Your task to perform on an android device: turn off picture-in-picture Image 0: 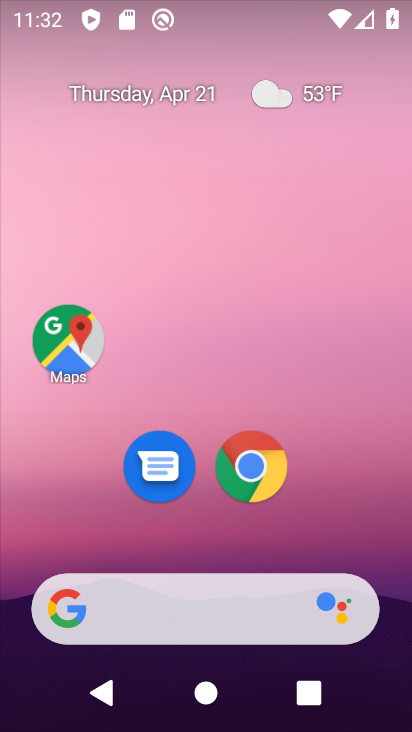
Step 0: drag from (295, 333) to (252, 32)
Your task to perform on an android device: turn off picture-in-picture Image 1: 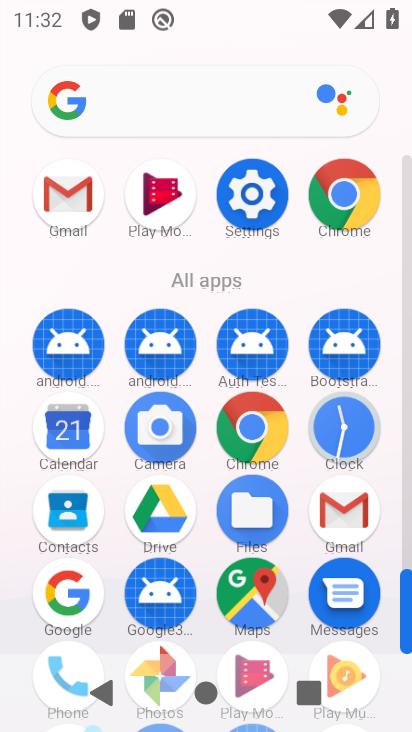
Step 1: drag from (17, 602) to (17, 267)
Your task to perform on an android device: turn off picture-in-picture Image 2: 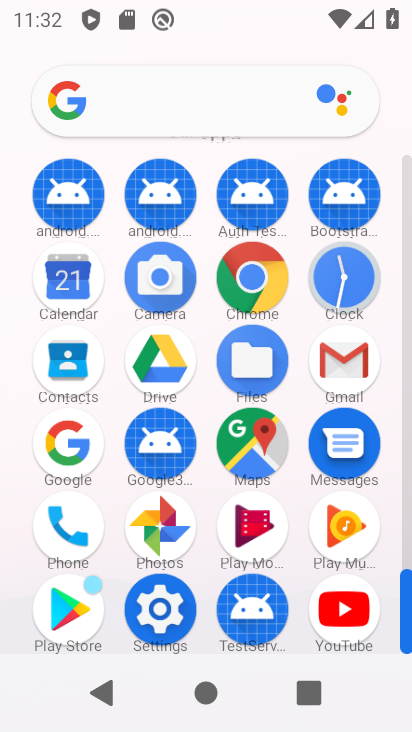
Step 2: click (158, 607)
Your task to perform on an android device: turn off picture-in-picture Image 3: 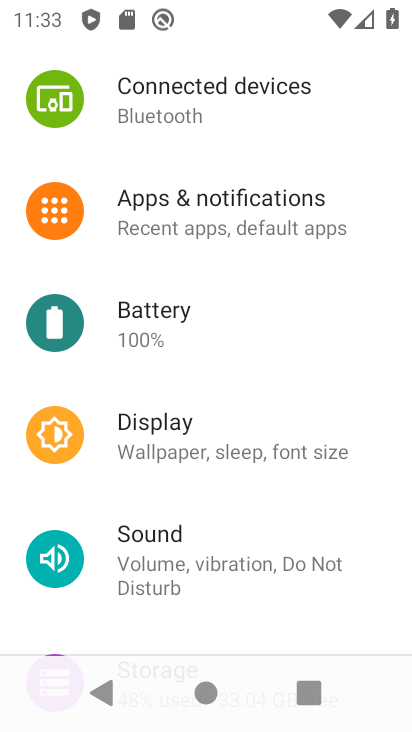
Step 3: click (291, 212)
Your task to perform on an android device: turn off picture-in-picture Image 4: 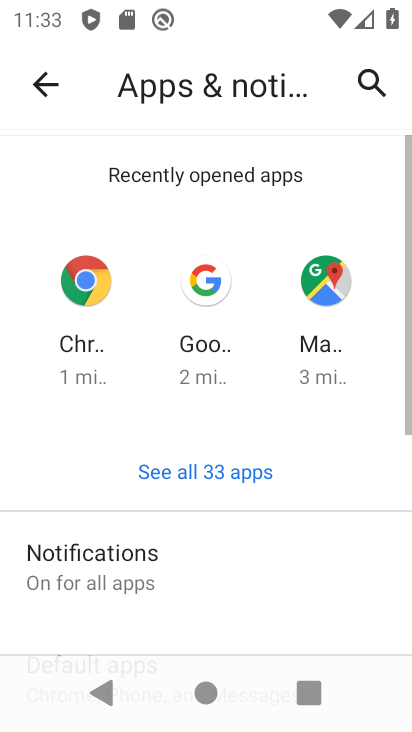
Step 4: drag from (254, 582) to (273, 123)
Your task to perform on an android device: turn off picture-in-picture Image 5: 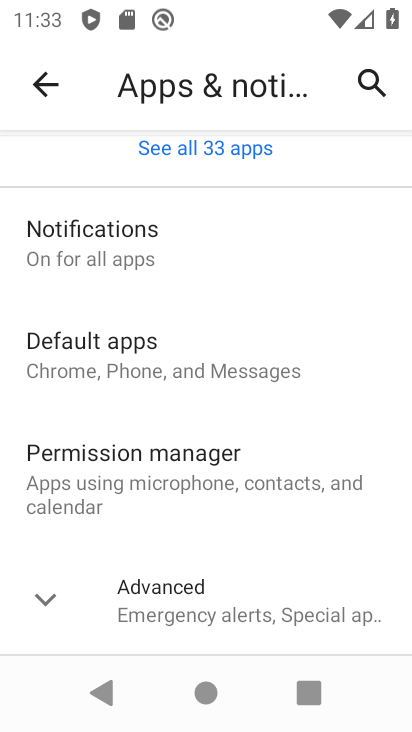
Step 5: click (200, 597)
Your task to perform on an android device: turn off picture-in-picture Image 6: 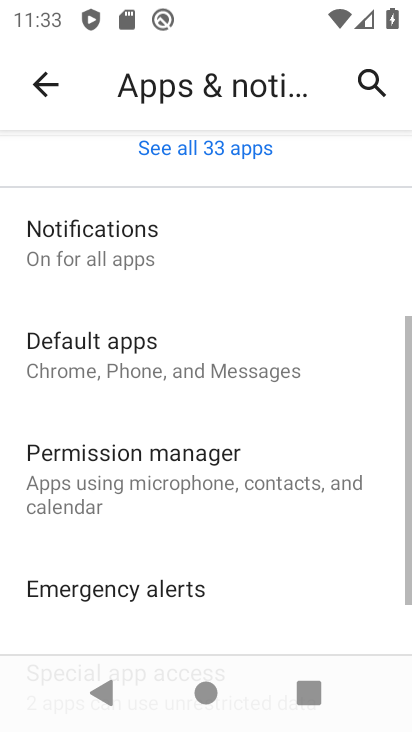
Step 6: drag from (308, 583) to (293, 109)
Your task to perform on an android device: turn off picture-in-picture Image 7: 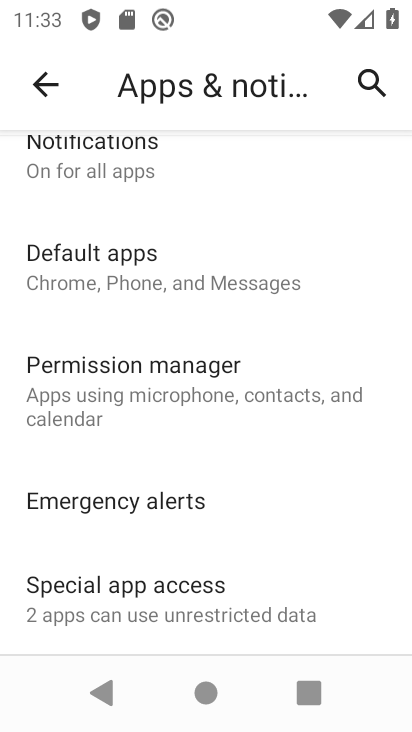
Step 7: drag from (254, 522) to (279, 119)
Your task to perform on an android device: turn off picture-in-picture Image 8: 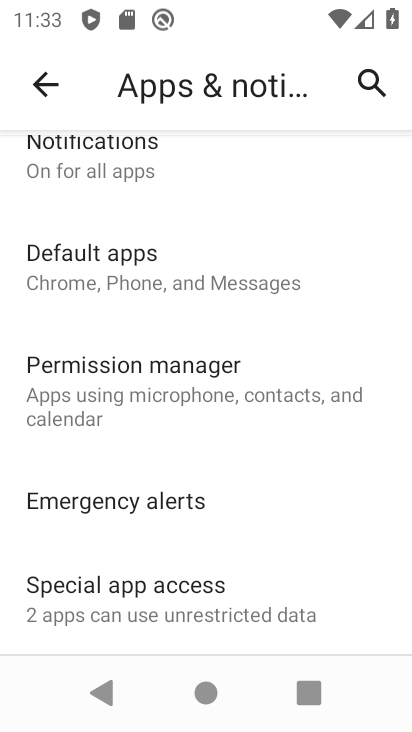
Step 8: drag from (238, 484) to (265, 163)
Your task to perform on an android device: turn off picture-in-picture Image 9: 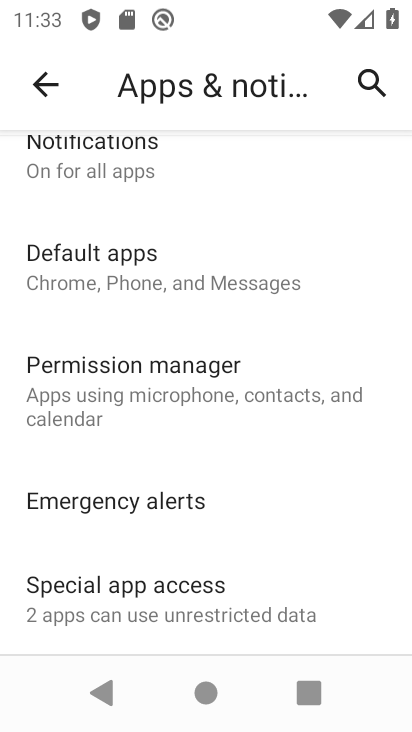
Step 9: click (162, 571)
Your task to perform on an android device: turn off picture-in-picture Image 10: 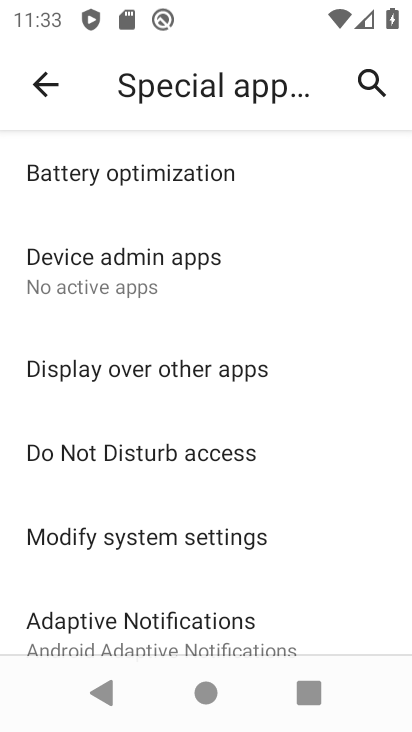
Step 10: drag from (270, 534) to (303, 198)
Your task to perform on an android device: turn off picture-in-picture Image 11: 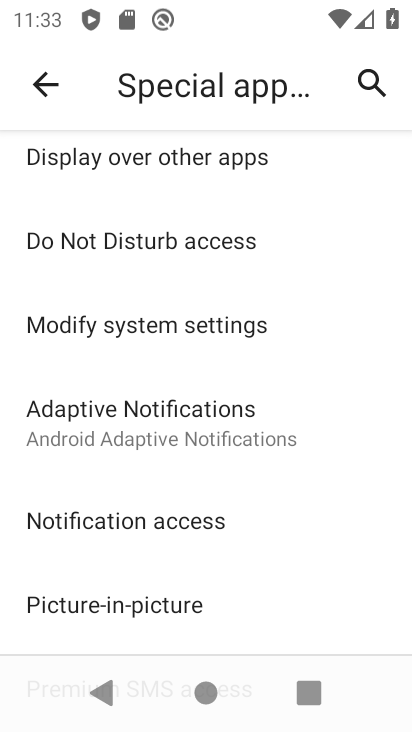
Step 11: drag from (264, 488) to (275, 170)
Your task to perform on an android device: turn off picture-in-picture Image 12: 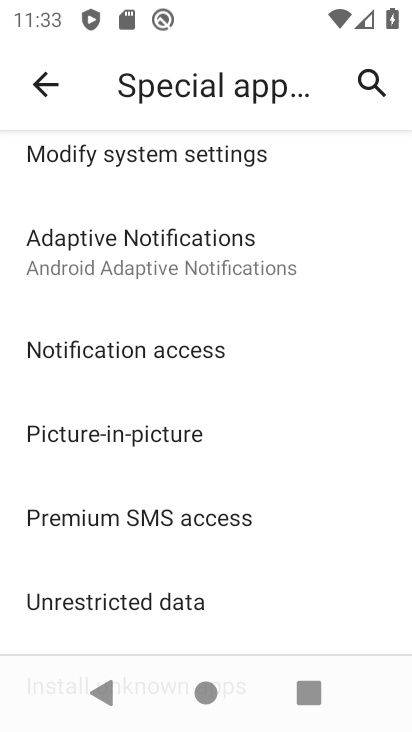
Step 12: drag from (243, 462) to (256, 183)
Your task to perform on an android device: turn off picture-in-picture Image 13: 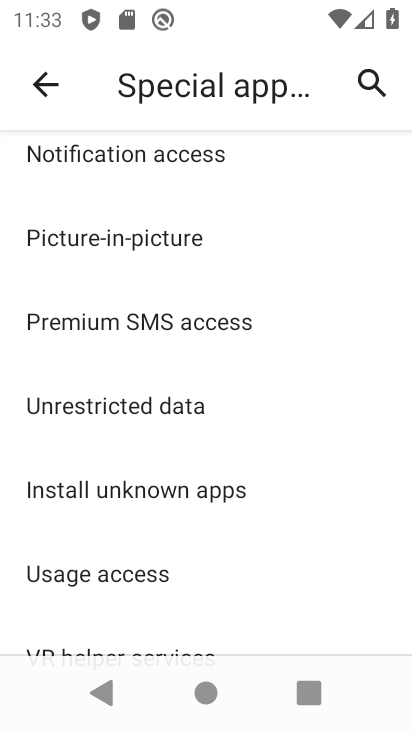
Step 13: drag from (249, 564) to (261, 173)
Your task to perform on an android device: turn off picture-in-picture Image 14: 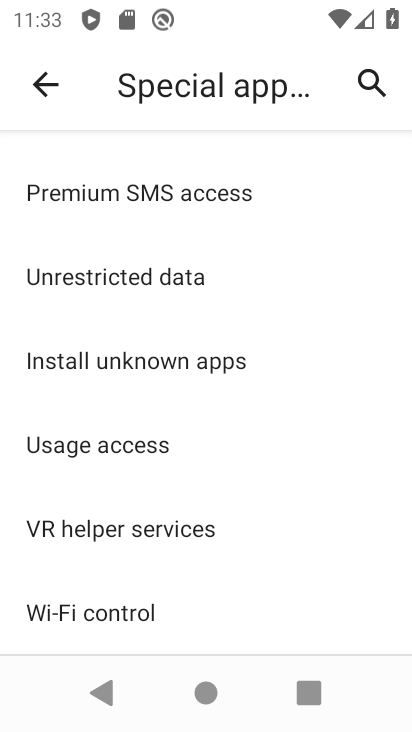
Step 14: drag from (234, 240) to (228, 528)
Your task to perform on an android device: turn off picture-in-picture Image 15: 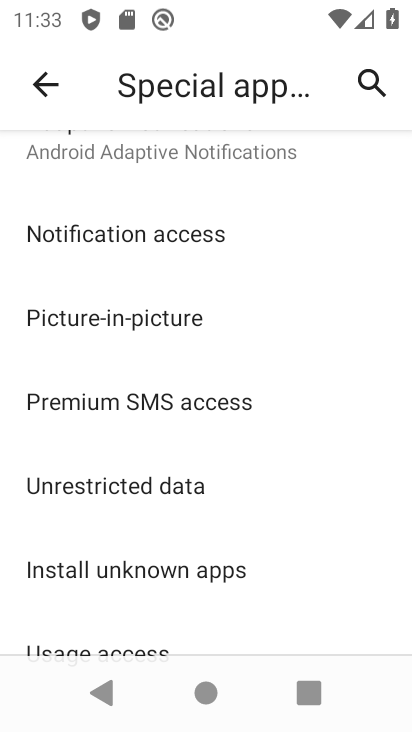
Step 15: click (173, 307)
Your task to perform on an android device: turn off picture-in-picture Image 16: 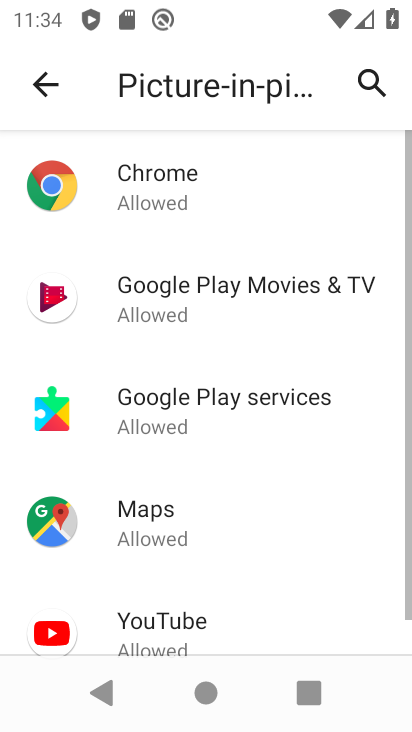
Step 16: click (202, 178)
Your task to perform on an android device: turn off picture-in-picture Image 17: 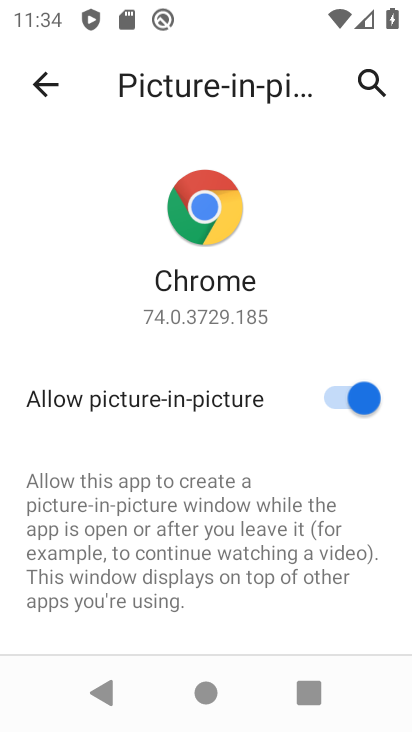
Step 17: click (354, 373)
Your task to perform on an android device: turn off picture-in-picture Image 18: 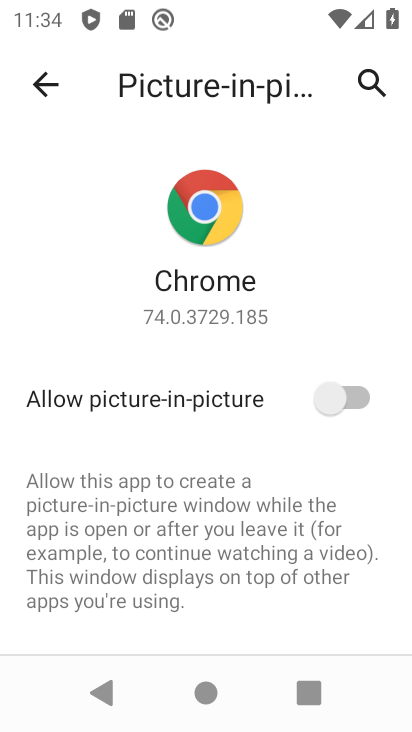
Step 18: click (40, 62)
Your task to perform on an android device: turn off picture-in-picture Image 19: 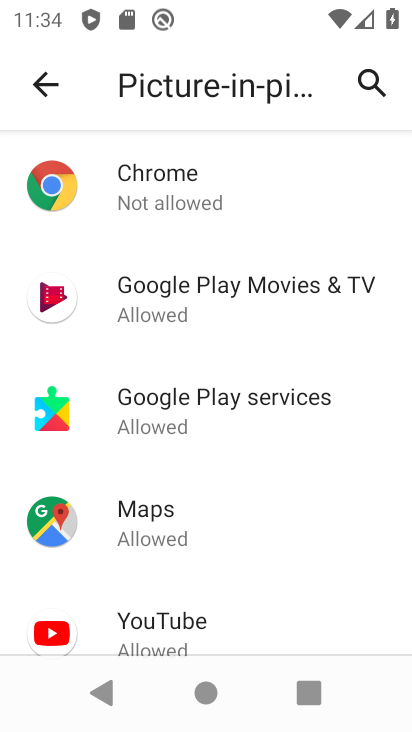
Step 19: click (233, 291)
Your task to perform on an android device: turn off picture-in-picture Image 20: 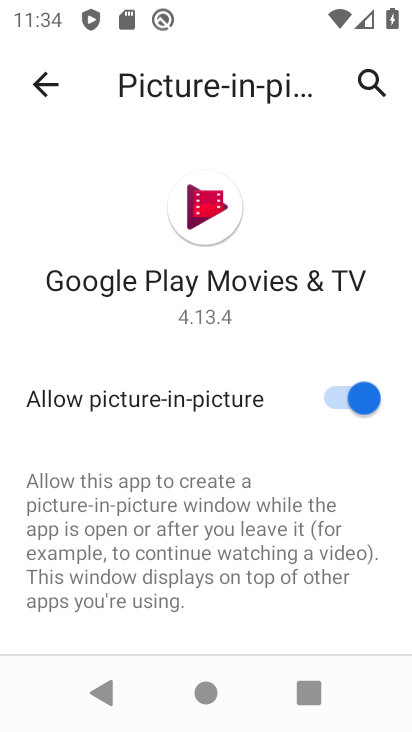
Step 20: click (48, 83)
Your task to perform on an android device: turn off picture-in-picture Image 21: 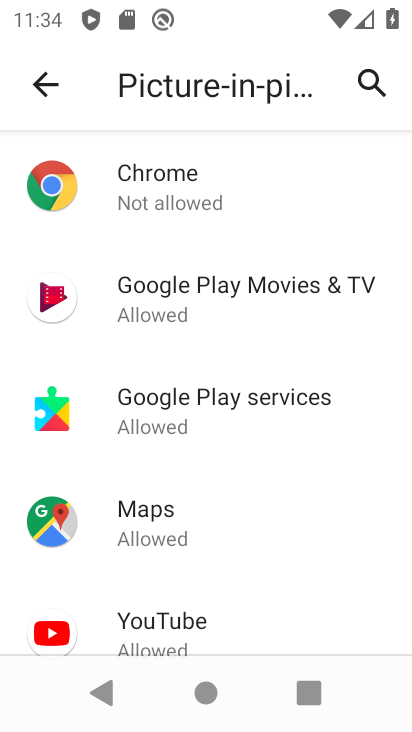
Step 21: click (238, 333)
Your task to perform on an android device: turn off picture-in-picture Image 22: 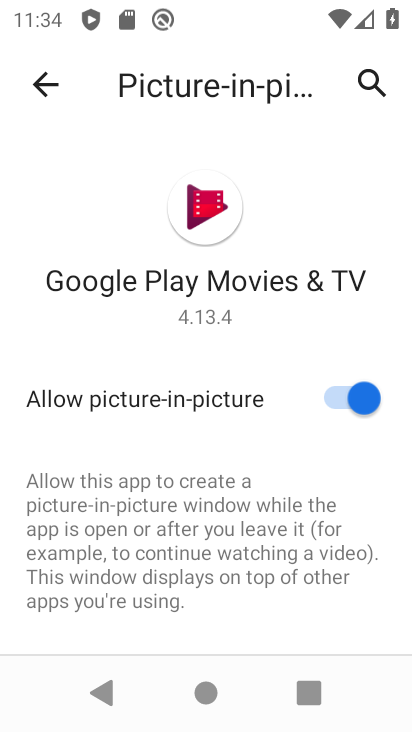
Step 22: click (346, 381)
Your task to perform on an android device: turn off picture-in-picture Image 23: 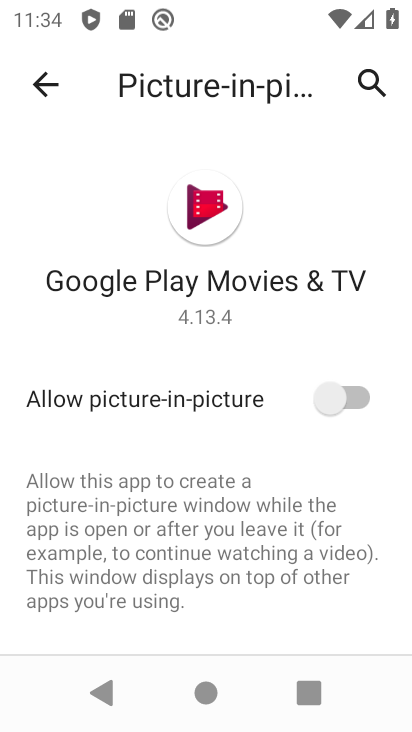
Step 23: click (37, 78)
Your task to perform on an android device: turn off picture-in-picture Image 24: 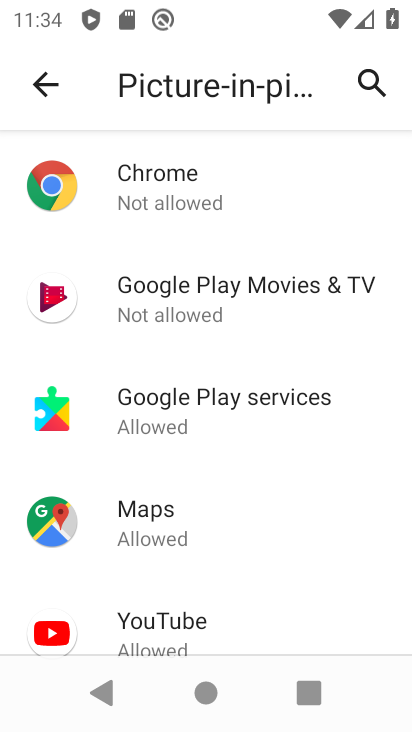
Step 24: click (256, 419)
Your task to perform on an android device: turn off picture-in-picture Image 25: 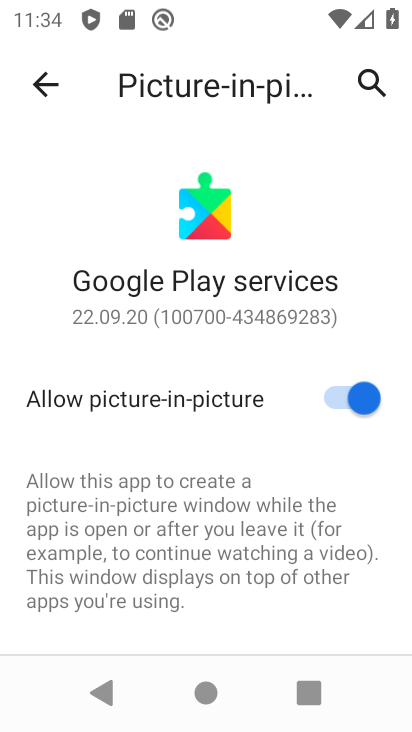
Step 25: click (320, 407)
Your task to perform on an android device: turn off picture-in-picture Image 26: 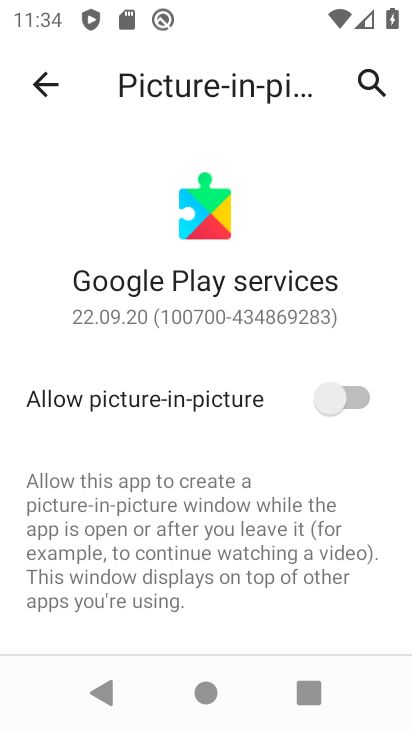
Step 26: click (65, 78)
Your task to perform on an android device: turn off picture-in-picture Image 27: 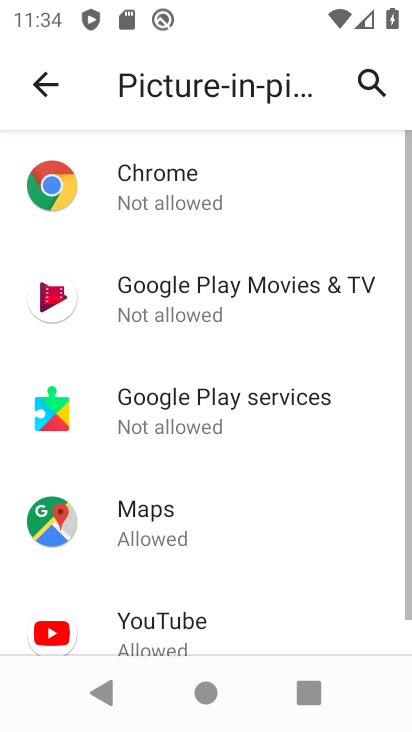
Step 27: click (170, 505)
Your task to perform on an android device: turn off picture-in-picture Image 28: 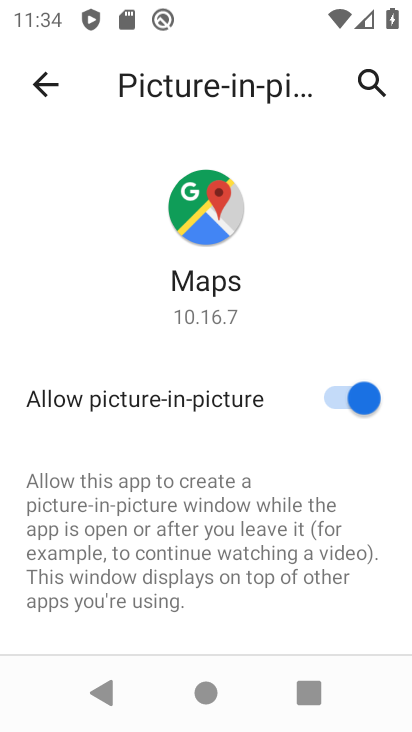
Step 28: click (343, 386)
Your task to perform on an android device: turn off picture-in-picture Image 29: 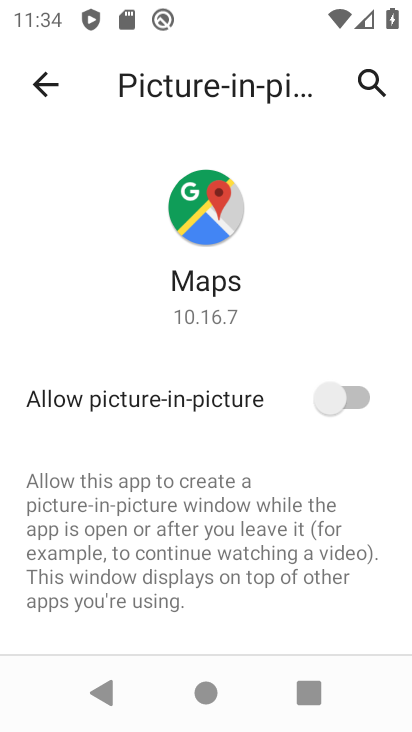
Step 29: click (53, 97)
Your task to perform on an android device: turn off picture-in-picture Image 30: 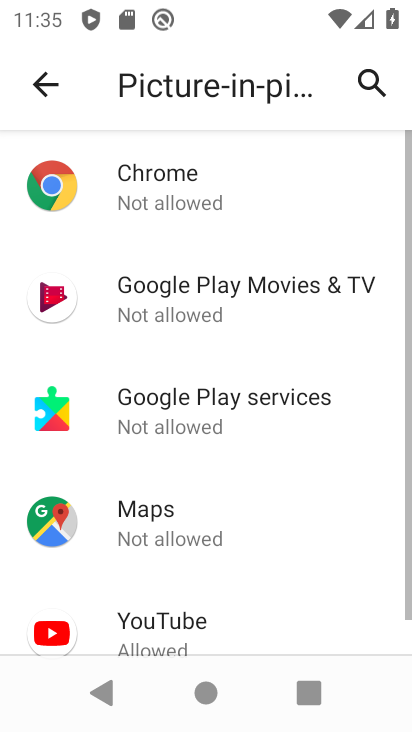
Step 30: drag from (261, 609) to (270, 227)
Your task to perform on an android device: turn off picture-in-picture Image 31: 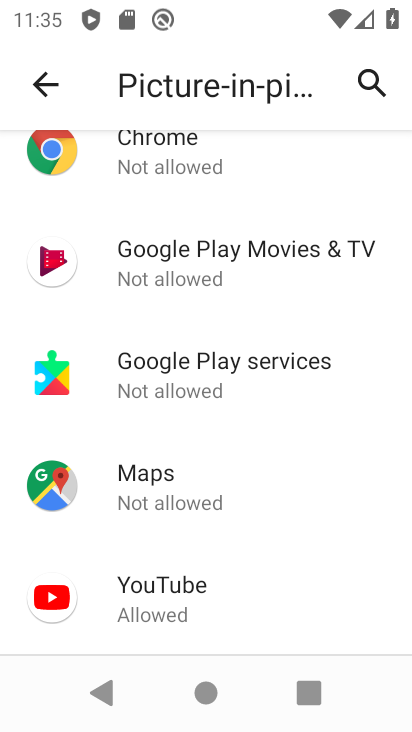
Step 31: click (205, 587)
Your task to perform on an android device: turn off picture-in-picture Image 32: 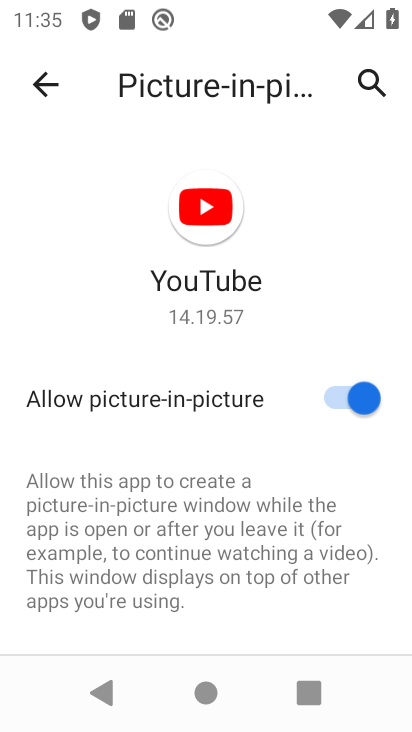
Step 32: click (343, 388)
Your task to perform on an android device: turn off picture-in-picture Image 33: 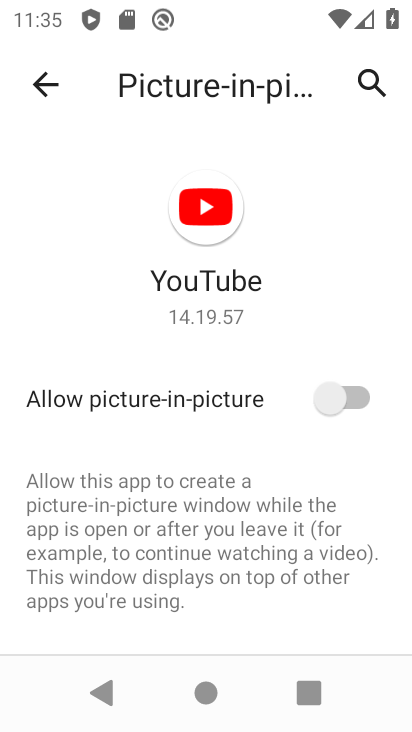
Step 33: click (65, 89)
Your task to perform on an android device: turn off picture-in-picture Image 34: 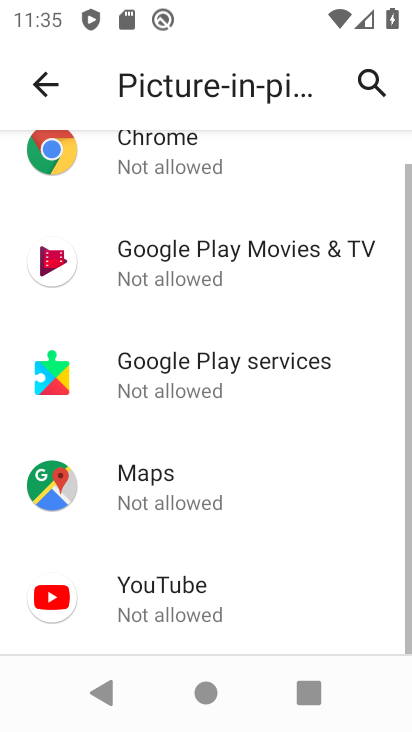
Step 34: task complete